Your task to perform on an android device: Open Android settings Image 0: 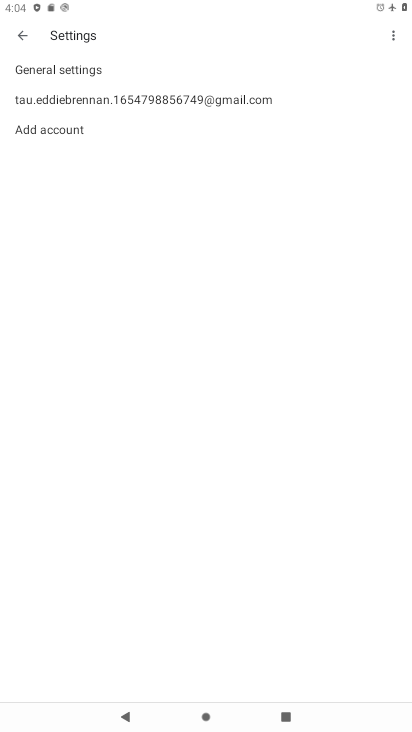
Step 0: press home button
Your task to perform on an android device: Open Android settings Image 1: 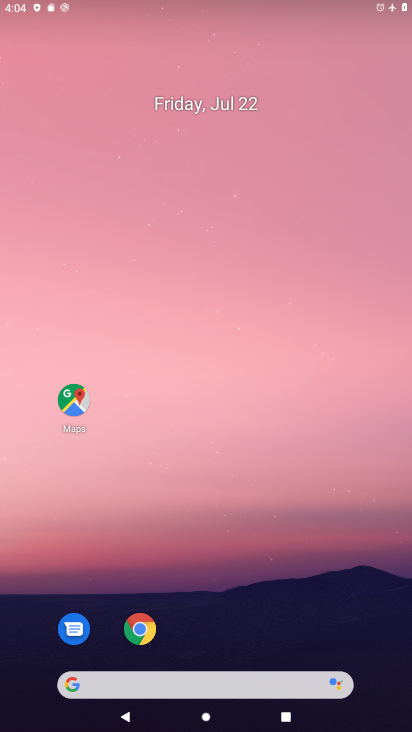
Step 1: drag from (228, 561) to (173, 59)
Your task to perform on an android device: Open Android settings Image 2: 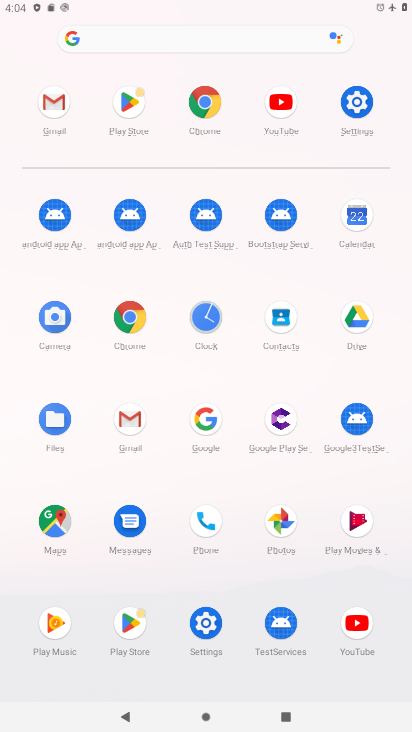
Step 2: click (346, 97)
Your task to perform on an android device: Open Android settings Image 3: 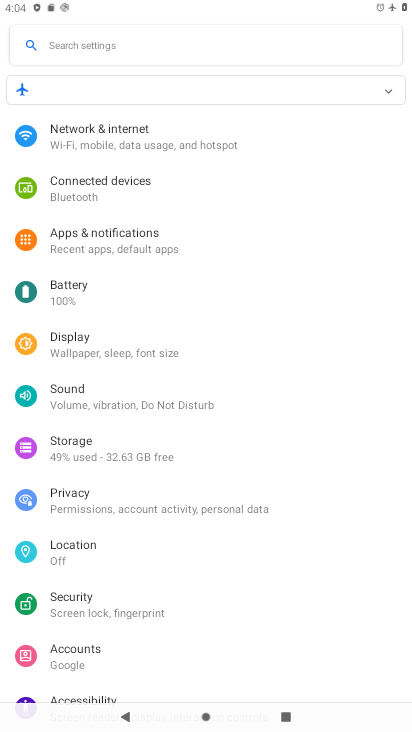
Step 3: task complete